Your task to perform on an android device: Search for Italian restaurants on Maps Image 0: 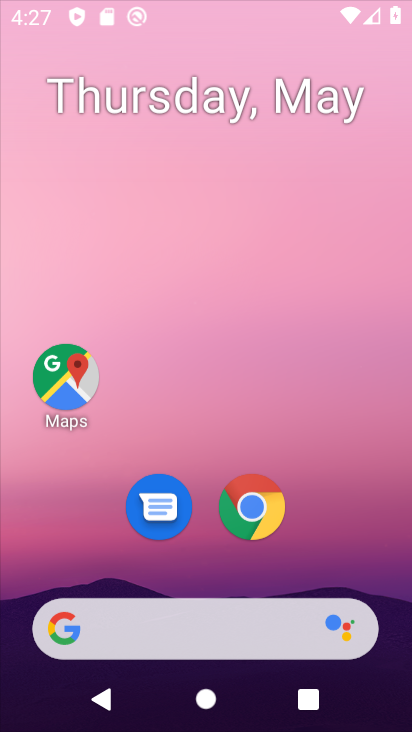
Step 0: drag from (201, 64) to (7, 143)
Your task to perform on an android device: Search for Italian restaurants on Maps Image 1: 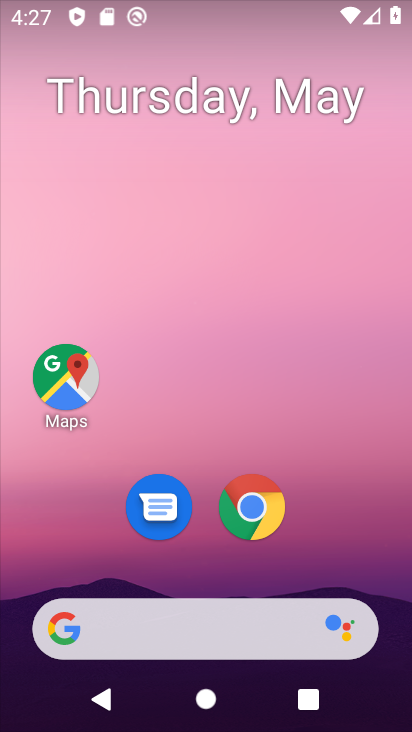
Step 1: drag from (330, 588) to (175, 21)
Your task to perform on an android device: Search for Italian restaurants on Maps Image 2: 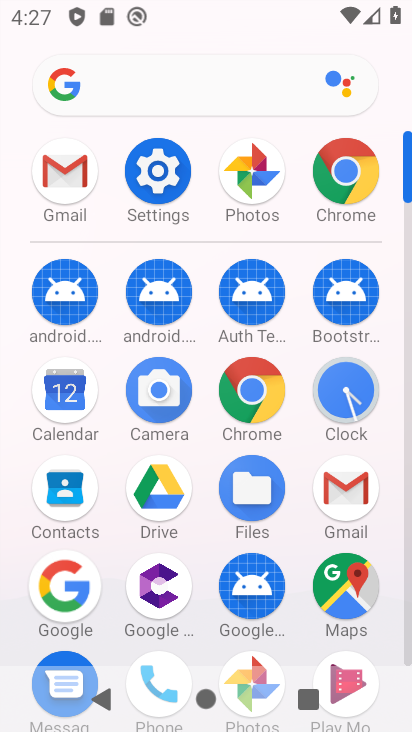
Step 2: click (350, 599)
Your task to perform on an android device: Search for Italian restaurants on Maps Image 3: 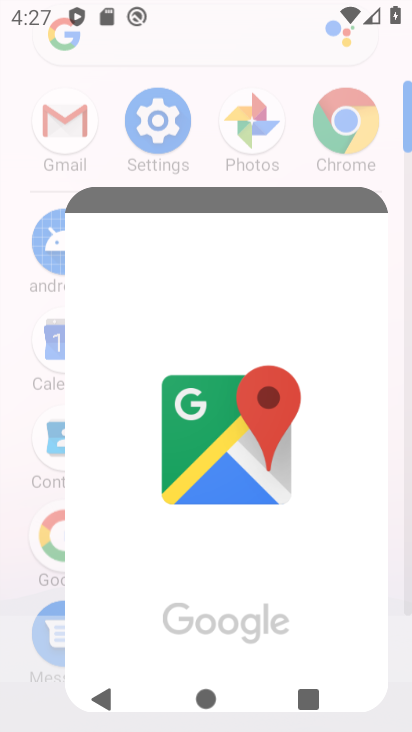
Step 3: click (341, 598)
Your task to perform on an android device: Search for Italian restaurants on Maps Image 4: 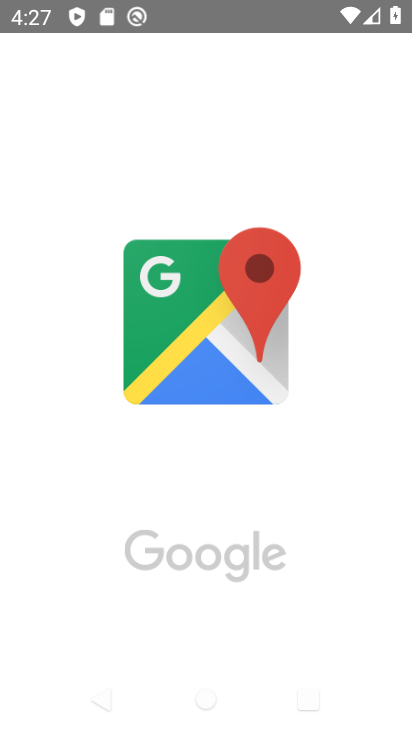
Step 4: click (342, 599)
Your task to perform on an android device: Search for Italian restaurants on Maps Image 5: 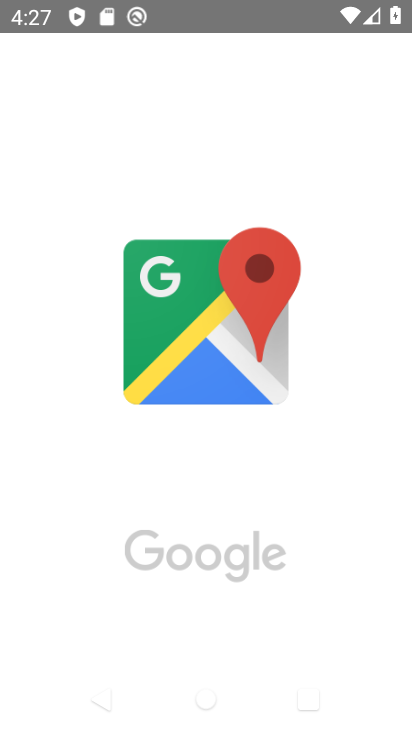
Step 5: click (345, 597)
Your task to perform on an android device: Search for Italian restaurants on Maps Image 6: 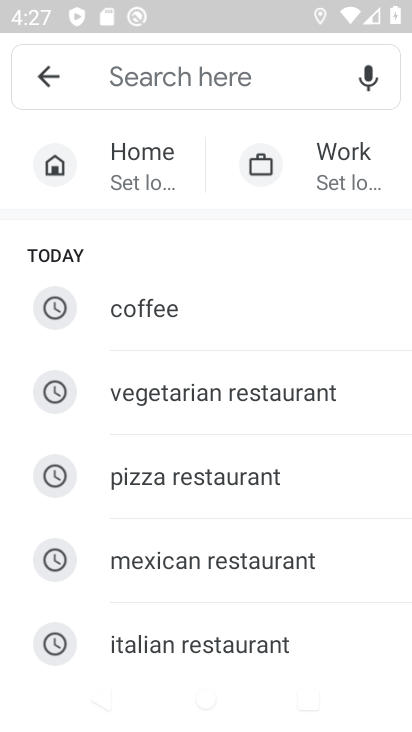
Step 6: click (157, 640)
Your task to perform on an android device: Search for Italian restaurants on Maps Image 7: 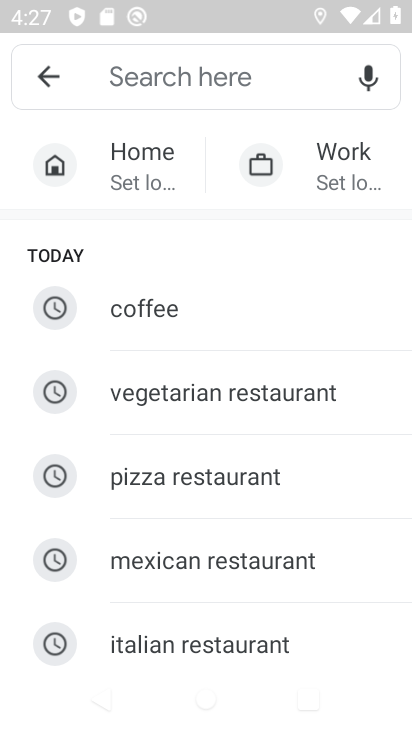
Step 7: click (157, 640)
Your task to perform on an android device: Search for Italian restaurants on Maps Image 8: 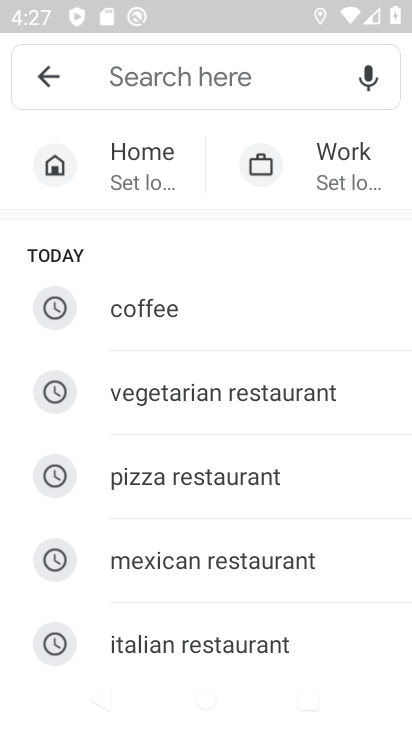
Step 8: click (157, 640)
Your task to perform on an android device: Search for Italian restaurants on Maps Image 9: 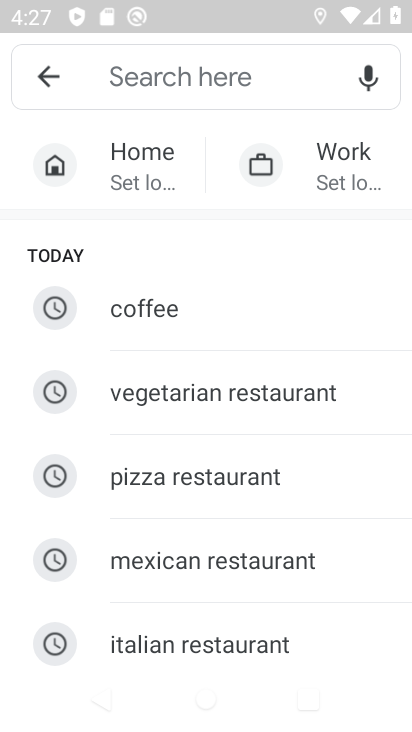
Step 9: click (161, 641)
Your task to perform on an android device: Search for Italian restaurants on Maps Image 10: 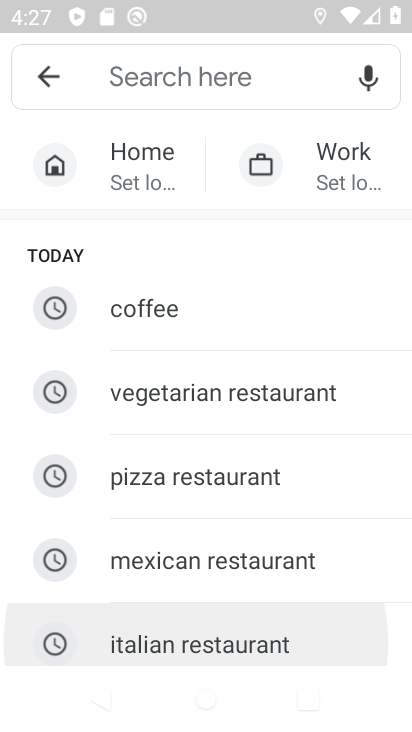
Step 10: click (160, 642)
Your task to perform on an android device: Search for Italian restaurants on Maps Image 11: 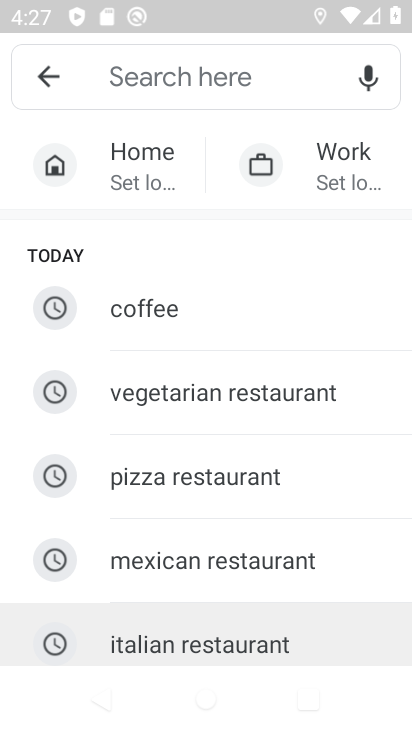
Step 11: click (159, 638)
Your task to perform on an android device: Search for Italian restaurants on Maps Image 12: 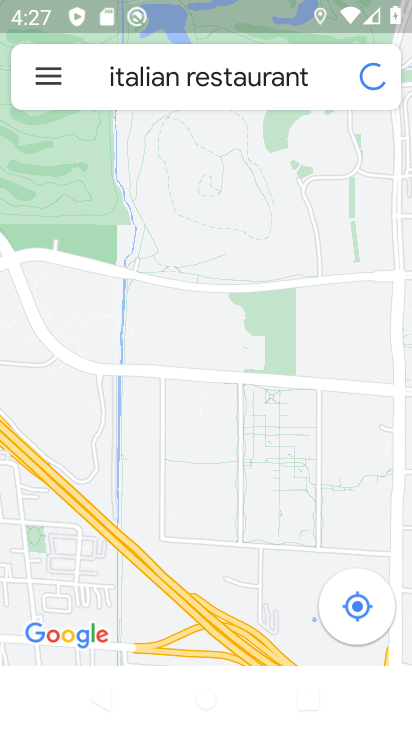
Step 12: click (160, 630)
Your task to perform on an android device: Search for Italian restaurants on Maps Image 13: 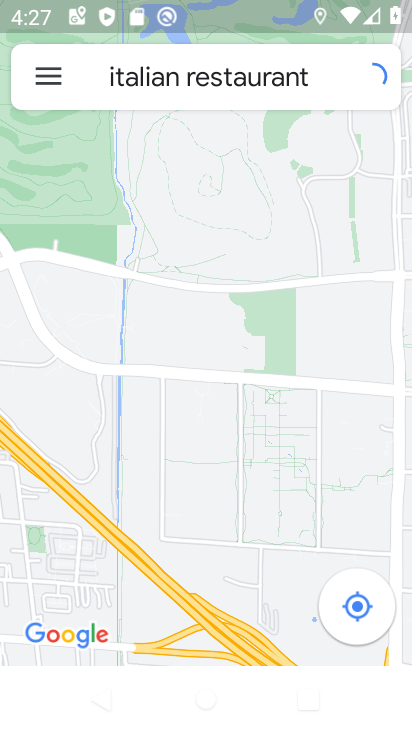
Step 13: click (161, 631)
Your task to perform on an android device: Search for Italian restaurants on Maps Image 14: 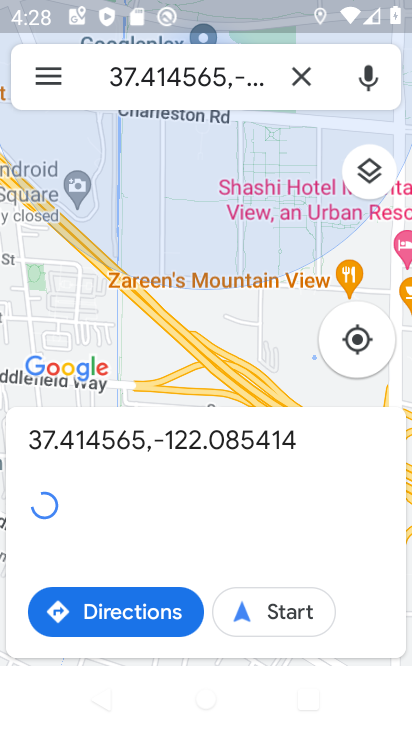
Step 14: task complete